Your task to perform on an android device: Open the Play Movies app and select the watchlist tab. Image 0: 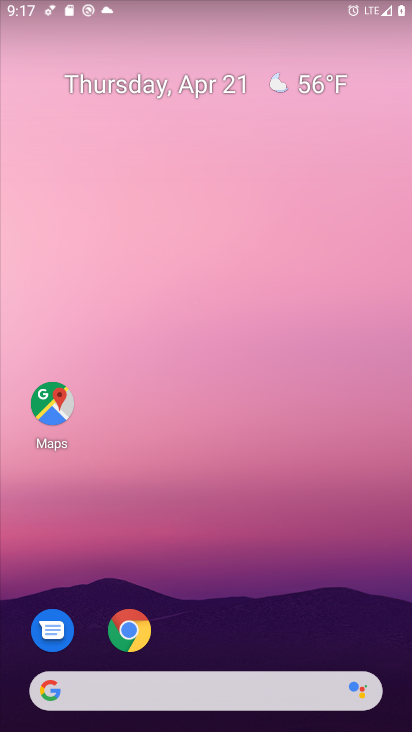
Step 0: drag from (220, 605) to (319, 56)
Your task to perform on an android device: Open the Play Movies app and select the watchlist tab. Image 1: 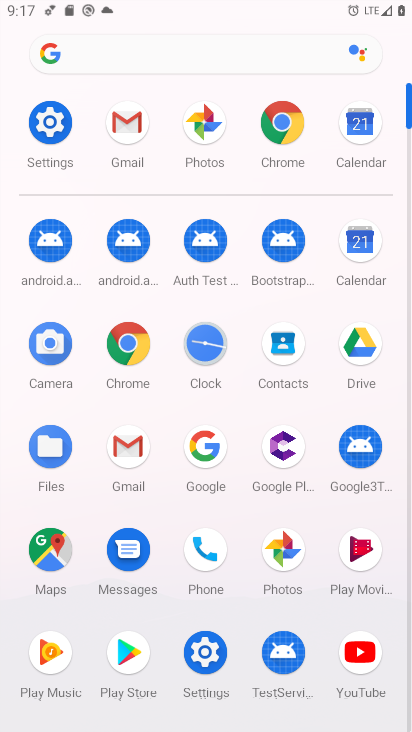
Step 1: click (350, 553)
Your task to perform on an android device: Open the Play Movies app and select the watchlist tab. Image 2: 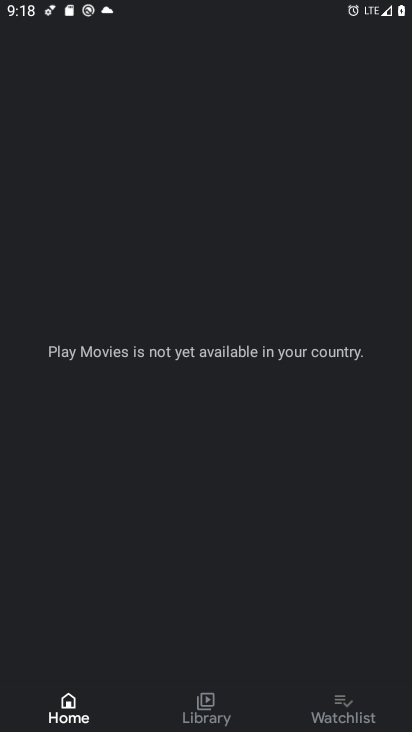
Step 2: click (339, 710)
Your task to perform on an android device: Open the Play Movies app and select the watchlist tab. Image 3: 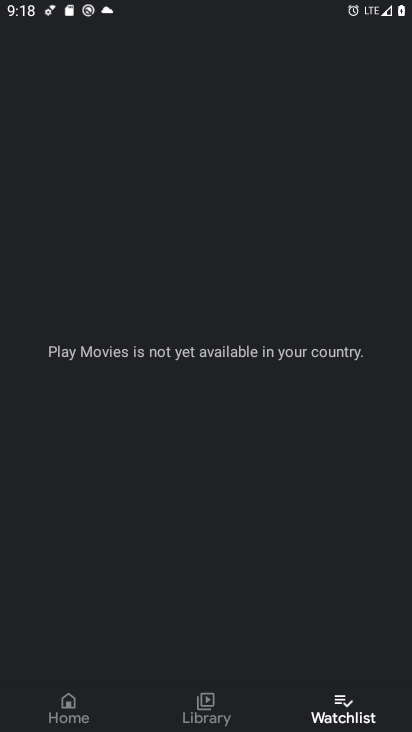
Step 3: task complete